Your task to perform on an android device: see tabs open on other devices in the chrome app Image 0: 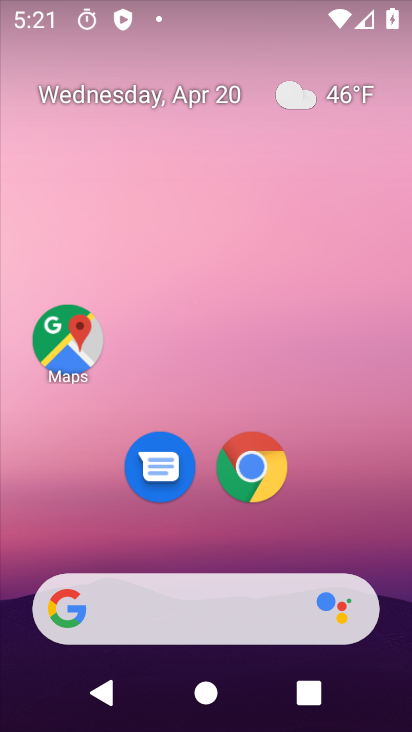
Step 0: click (246, 461)
Your task to perform on an android device: see tabs open on other devices in the chrome app Image 1: 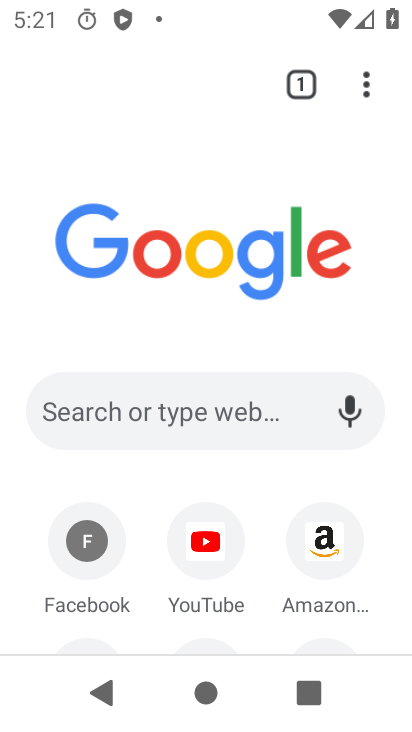
Step 1: click (366, 86)
Your task to perform on an android device: see tabs open on other devices in the chrome app Image 2: 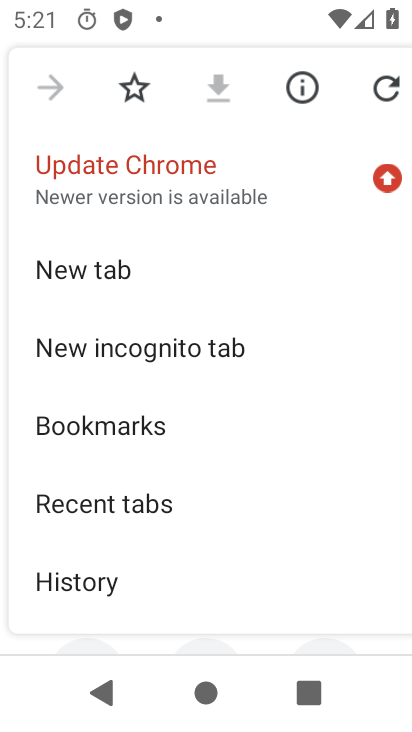
Step 2: click (117, 498)
Your task to perform on an android device: see tabs open on other devices in the chrome app Image 3: 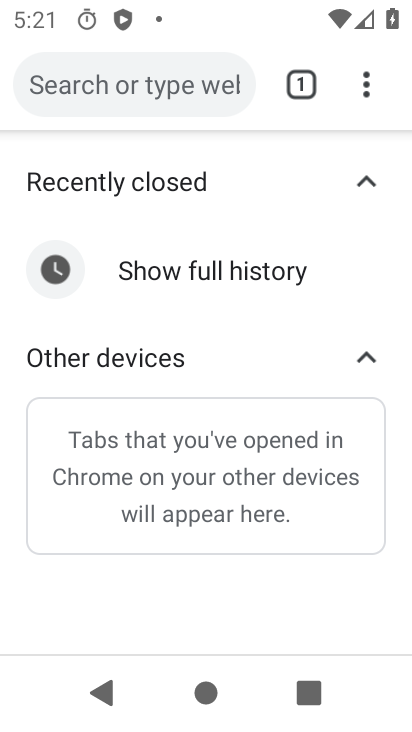
Step 3: task complete